Your task to perform on an android device: star an email in the gmail app Image 0: 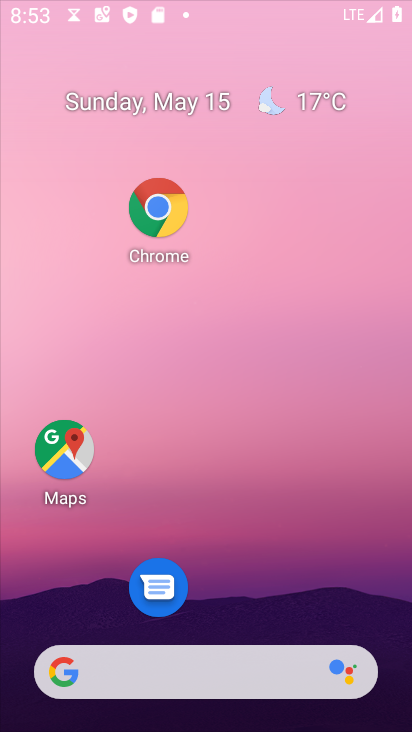
Step 0: drag from (309, 397) to (193, 3)
Your task to perform on an android device: star an email in the gmail app Image 1: 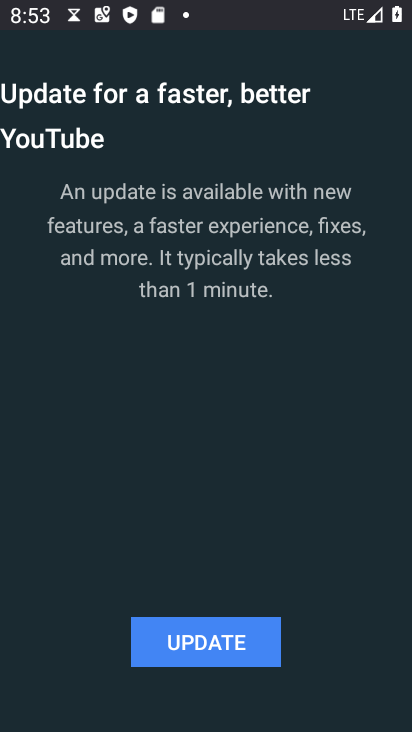
Step 1: press back button
Your task to perform on an android device: star an email in the gmail app Image 2: 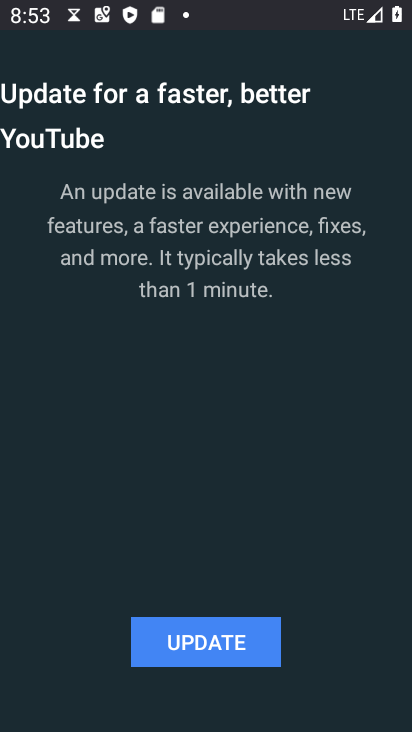
Step 2: press back button
Your task to perform on an android device: star an email in the gmail app Image 3: 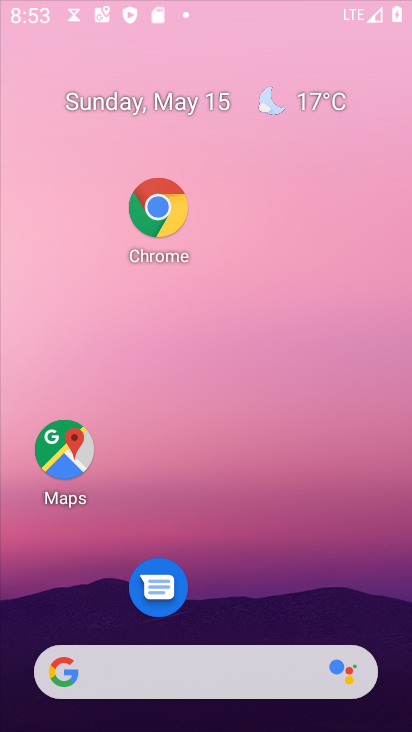
Step 3: press back button
Your task to perform on an android device: star an email in the gmail app Image 4: 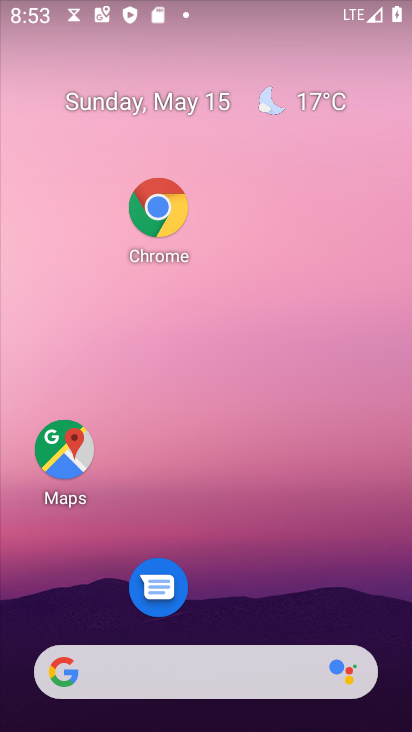
Step 4: drag from (279, 587) to (223, 34)
Your task to perform on an android device: star an email in the gmail app Image 5: 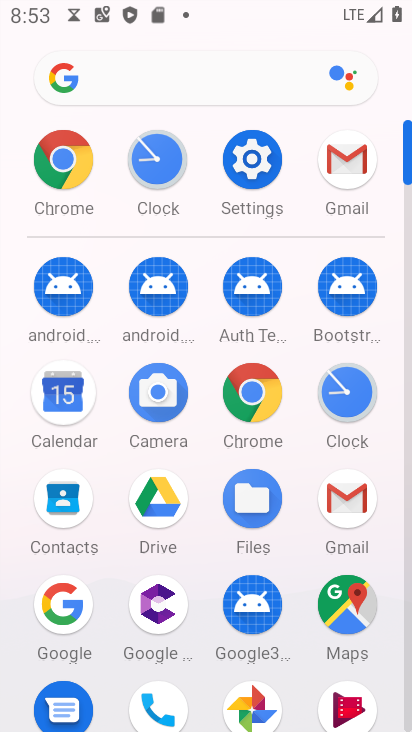
Step 5: click (336, 493)
Your task to perform on an android device: star an email in the gmail app Image 6: 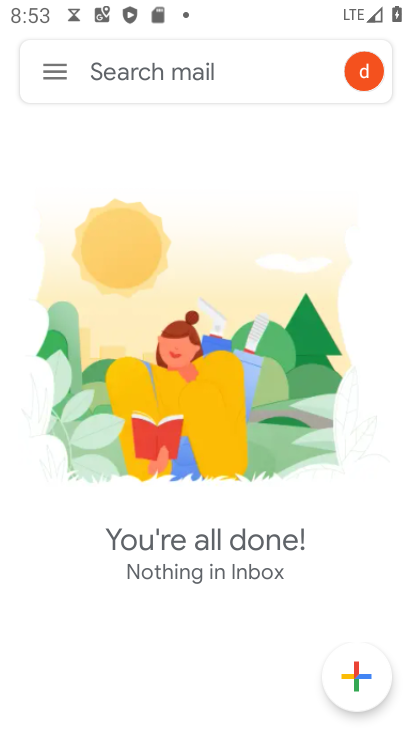
Step 6: click (52, 66)
Your task to perform on an android device: star an email in the gmail app Image 7: 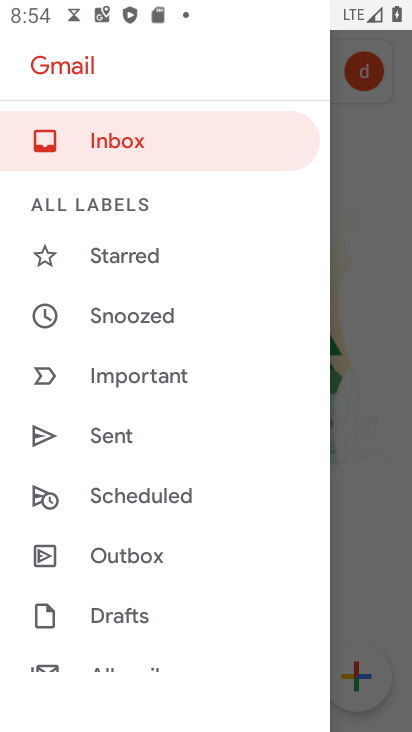
Step 7: drag from (162, 594) to (189, 200)
Your task to perform on an android device: star an email in the gmail app Image 8: 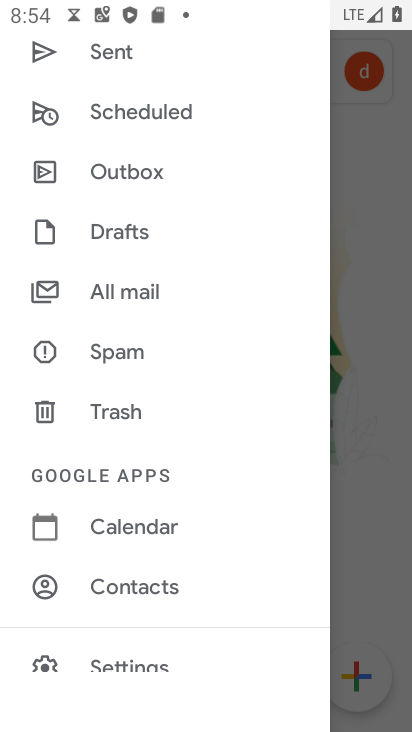
Step 8: drag from (239, 490) to (126, 260)
Your task to perform on an android device: star an email in the gmail app Image 9: 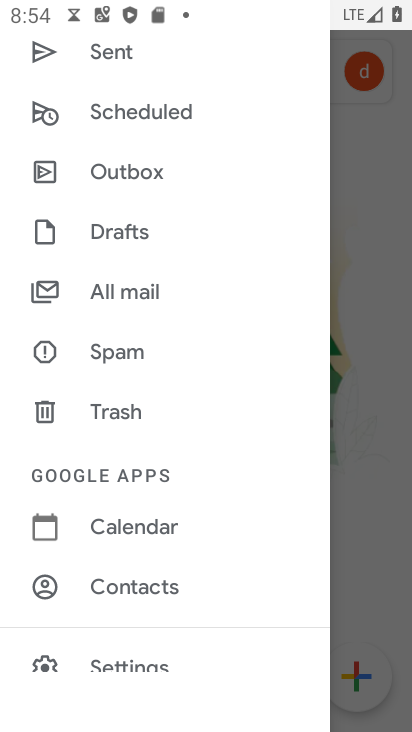
Step 9: click (127, 286)
Your task to perform on an android device: star an email in the gmail app Image 10: 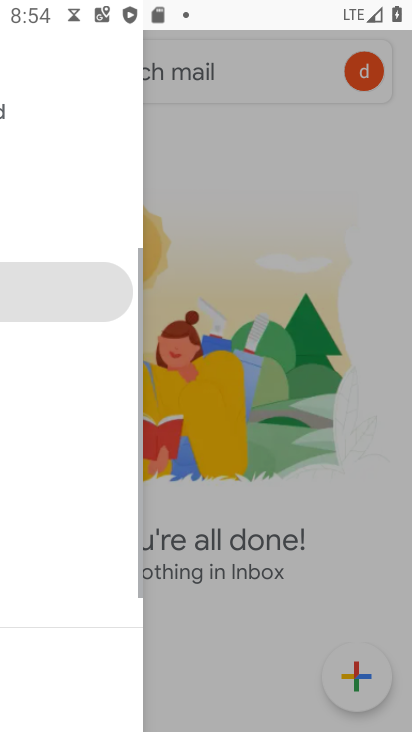
Step 10: click (127, 287)
Your task to perform on an android device: star an email in the gmail app Image 11: 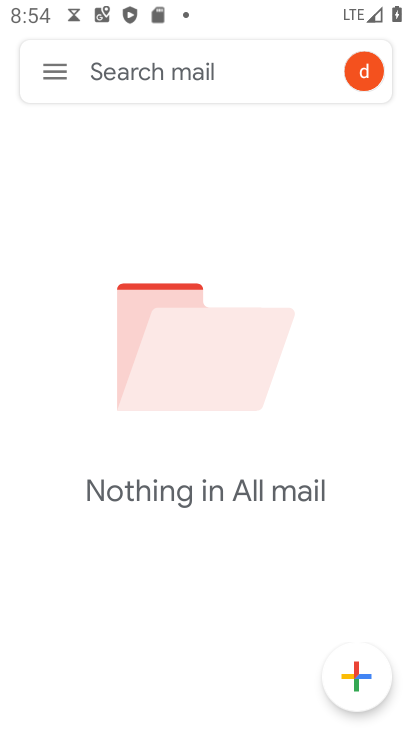
Step 11: task complete